Your task to perform on an android device: Open the calendar app, open the side menu, and click the "Day" option Image 0: 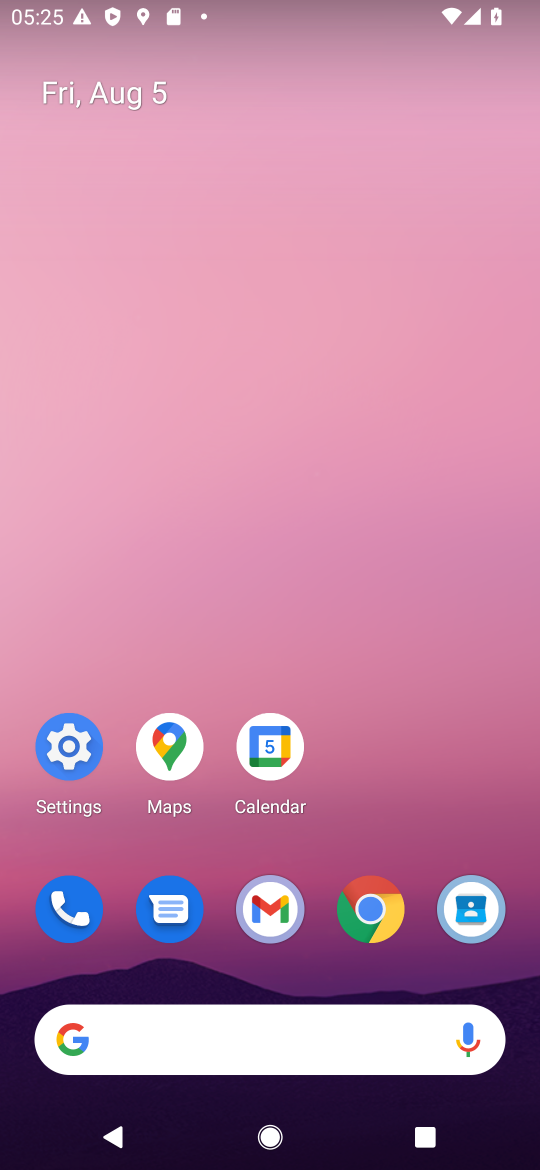
Step 0: click (277, 747)
Your task to perform on an android device: Open the calendar app, open the side menu, and click the "Day" option Image 1: 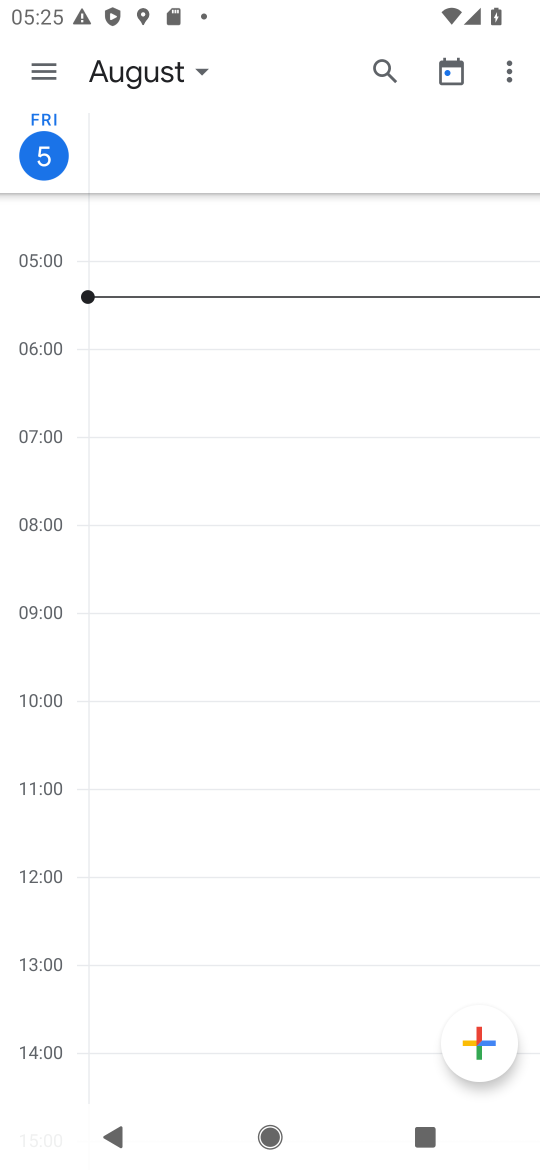
Step 1: click (44, 74)
Your task to perform on an android device: Open the calendar app, open the side menu, and click the "Day" option Image 2: 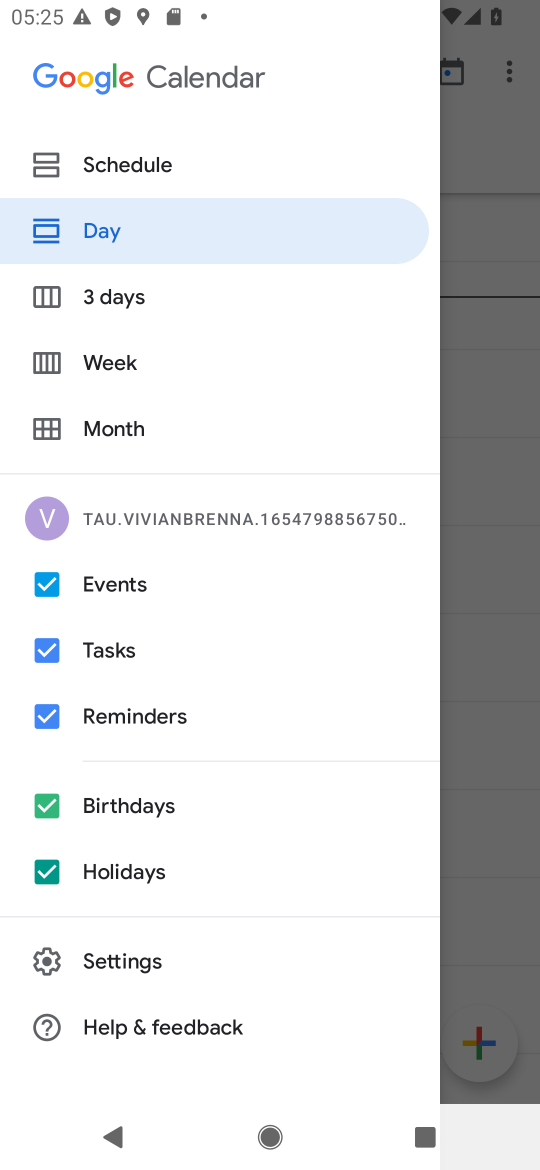
Step 2: click (108, 231)
Your task to perform on an android device: Open the calendar app, open the side menu, and click the "Day" option Image 3: 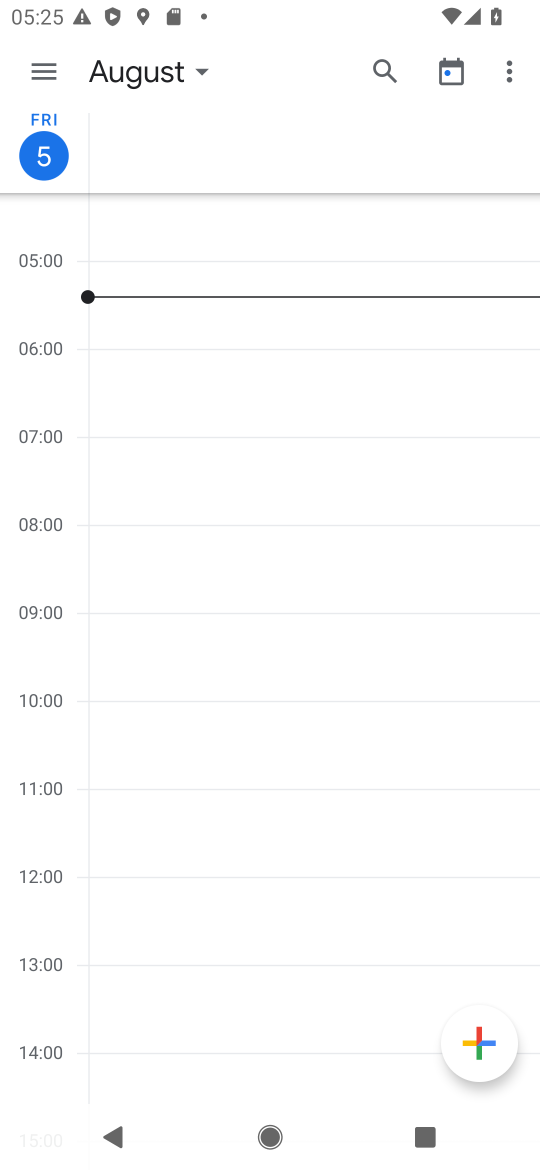
Step 3: task complete